Your task to perform on an android device: turn on location history Image 0: 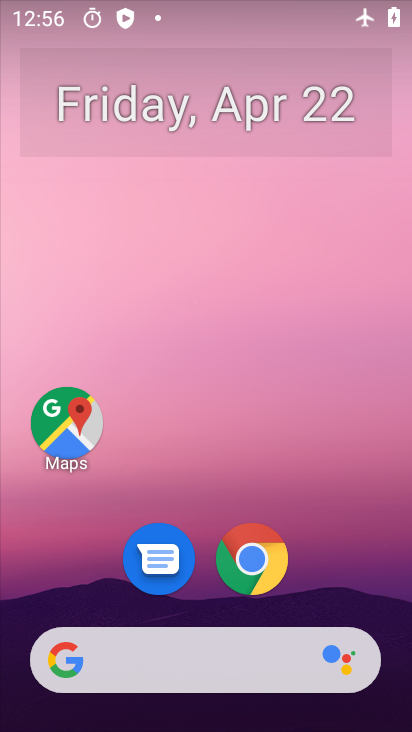
Step 0: click (373, 92)
Your task to perform on an android device: turn on location history Image 1: 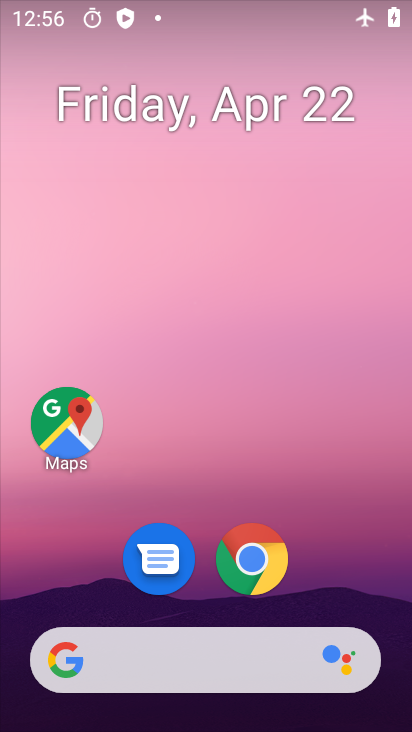
Step 1: drag from (314, 546) to (344, 64)
Your task to perform on an android device: turn on location history Image 2: 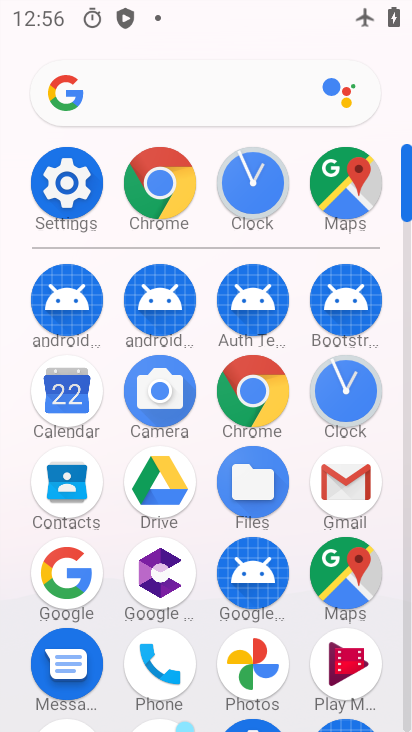
Step 2: click (69, 196)
Your task to perform on an android device: turn on location history Image 3: 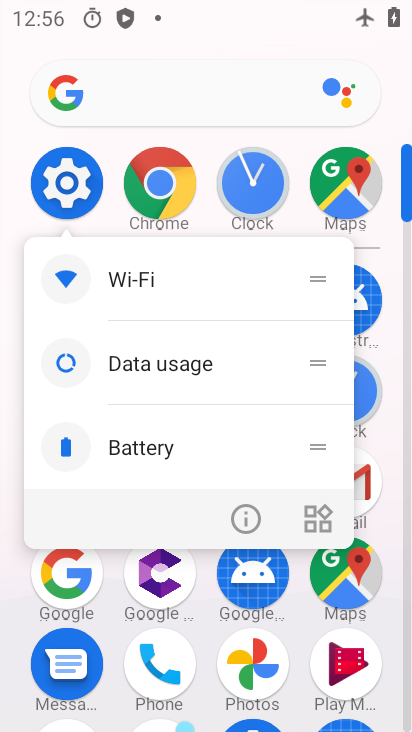
Step 3: click (77, 187)
Your task to perform on an android device: turn on location history Image 4: 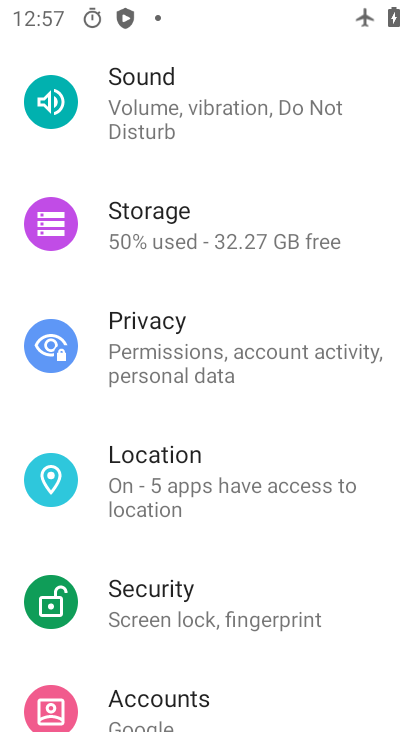
Step 4: drag from (341, 397) to (331, 470)
Your task to perform on an android device: turn on location history Image 5: 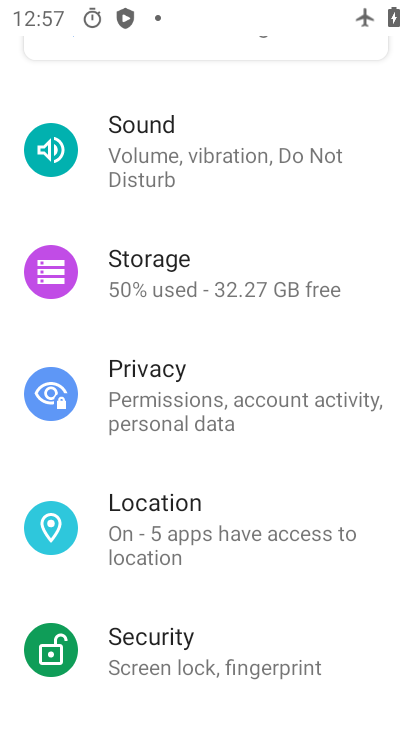
Step 5: drag from (369, 345) to (368, 460)
Your task to perform on an android device: turn on location history Image 6: 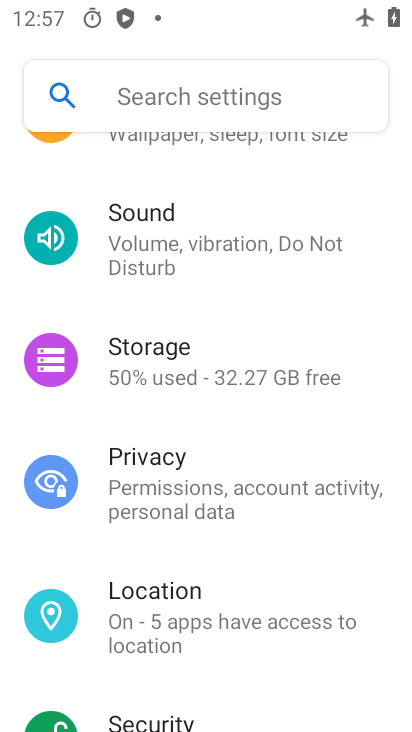
Step 6: drag from (376, 365) to (359, 462)
Your task to perform on an android device: turn on location history Image 7: 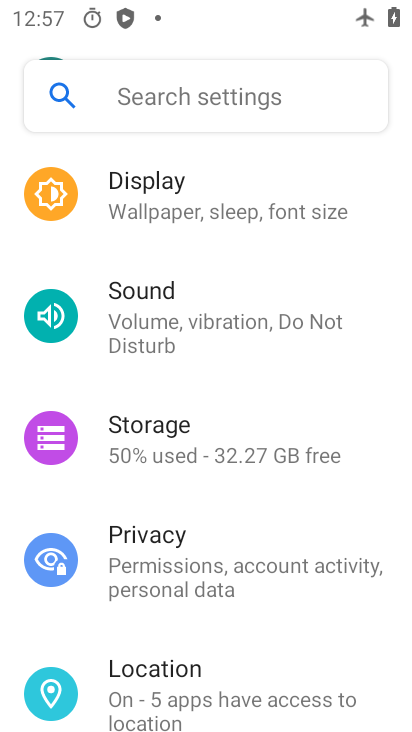
Step 7: drag from (364, 374) to (357, 479)
Your task to perform on an android device: turn on location history Image 8: 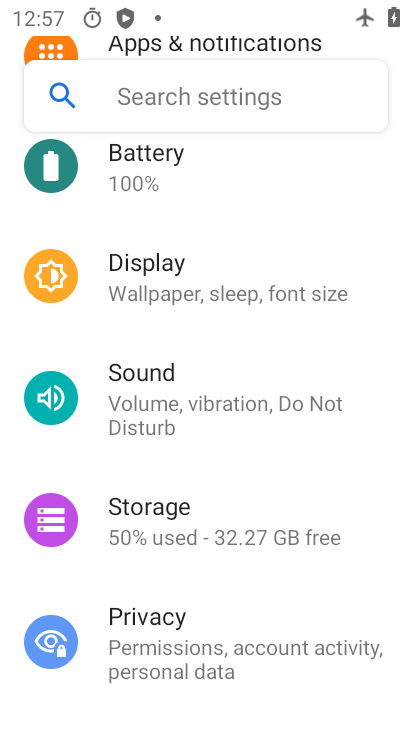
Step 8: drag from (353, 412) to (358, 490)
Your task to perform on an android device: turn on location history Image 9: 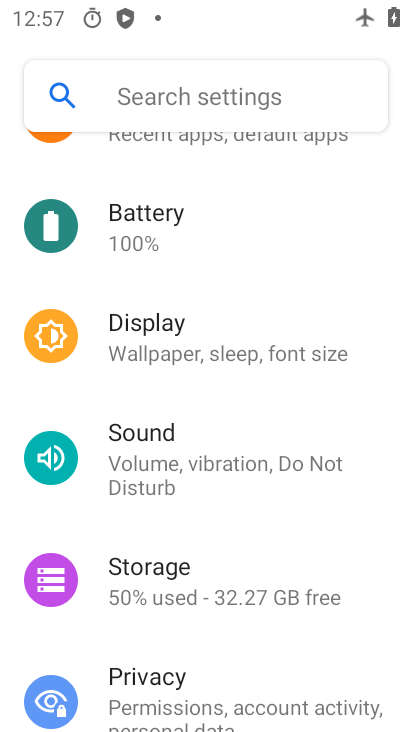
Step 9: drag from (367, 414) to (366, 500)
Your task to perform on an android device: turn on location history Image 10: 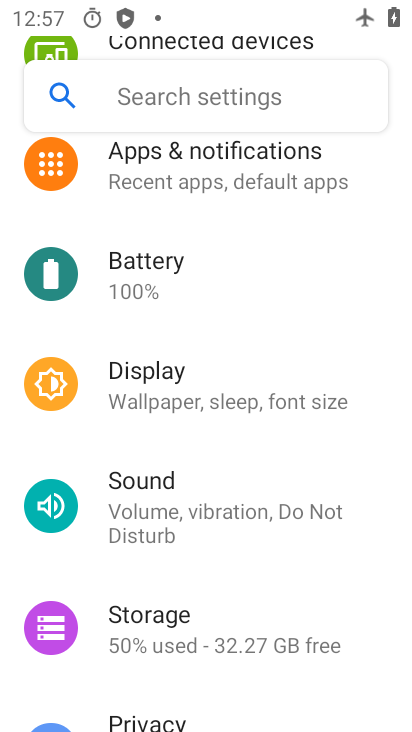
Step 10: drag from (375, 398) to (368, 497)
Your task to perform on an android device: turn on location history Image 11: 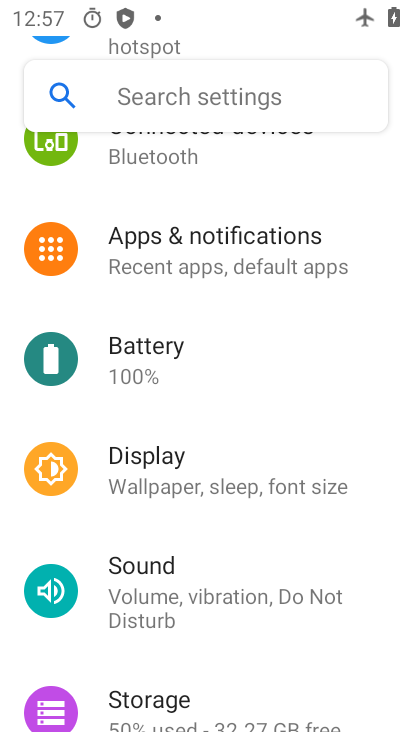
Step 11: drag from (374, 420) to (373, 518)
Your task to perform on an android device: turn on location history Image 12: 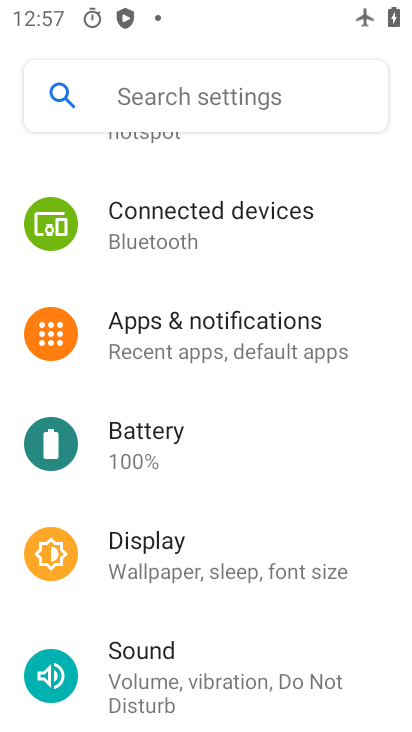
Step 12: drag from (361, 435) to (355, 527)
Your task to perform on an android device: turn on location history Image 13: 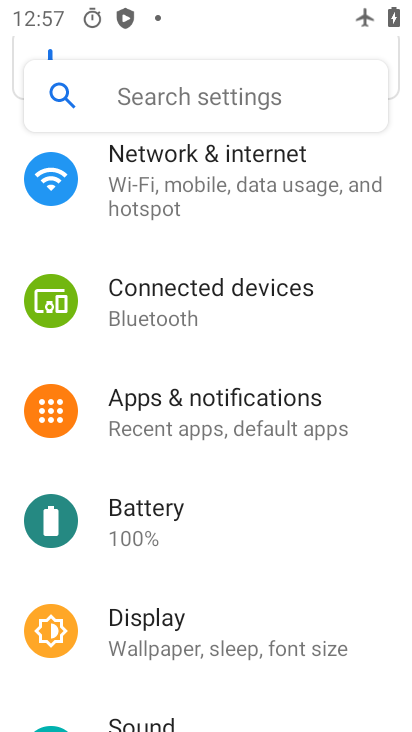
Step 13: drag from (368, 550) to (367, 428)
Your task to perform on an android device: turn on location history Image 14: 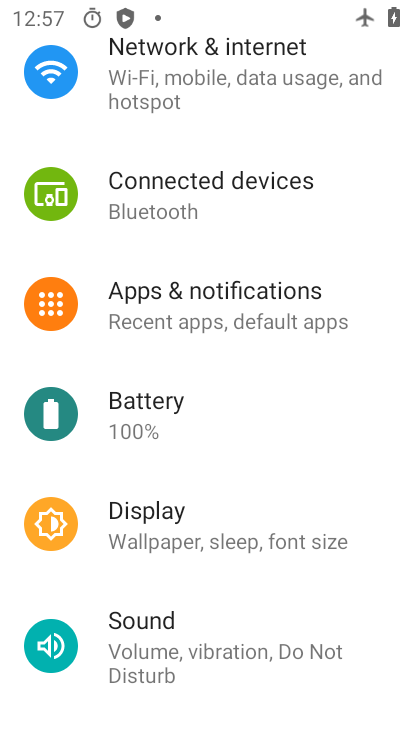
Step 14: drag from (367, 573) to (340, 408)
Your task to perform on an android device: turn on location history Image 15: 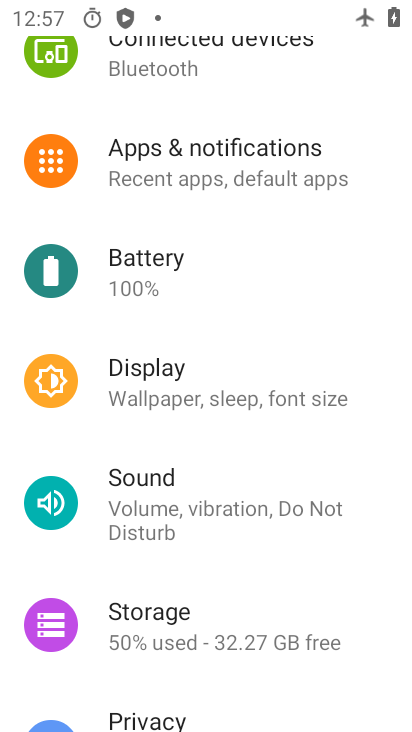
Step 15: drag from (373, 576) to (356, 420)
Your task to perform on an android device: turn on location history Image 16: 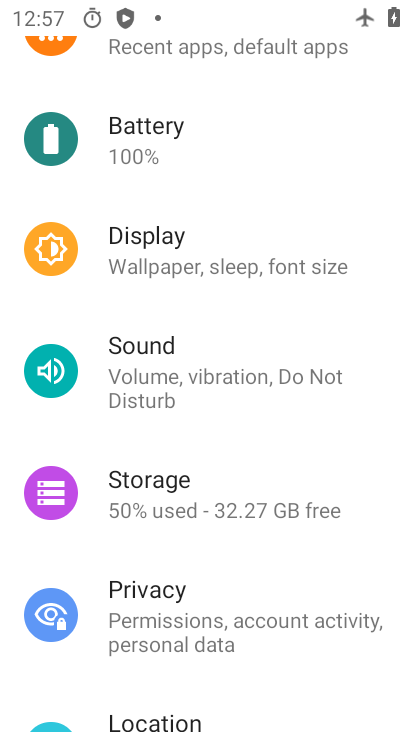
Step 16: drag from (367, 556) to (361, 411)
Your task to perform on an android device: turn on location history Image 17: 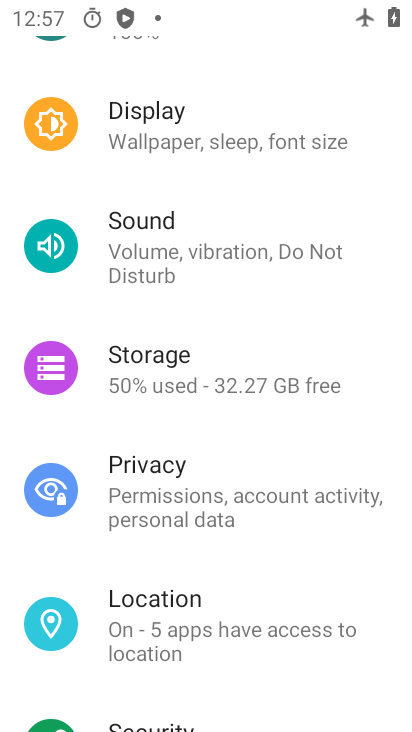
Step 17: drag from (366, 559) to (362, 420)
Your task to perform on an android device: turn on location history Image 18: 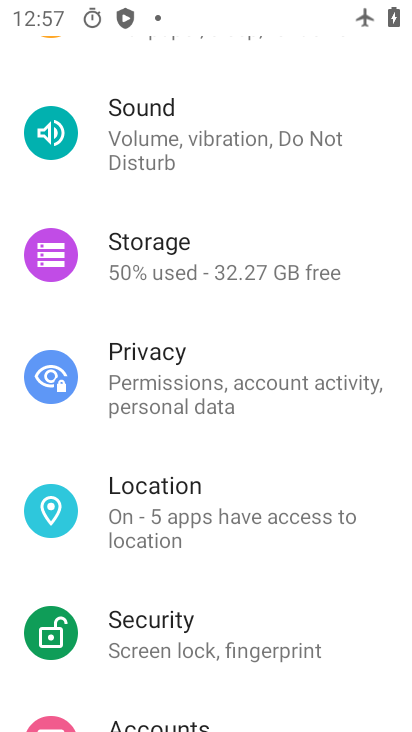
Step 18: drag from (379, 584) to (375, 480)
Your task to perform on an android device: turn on location history Image 19: 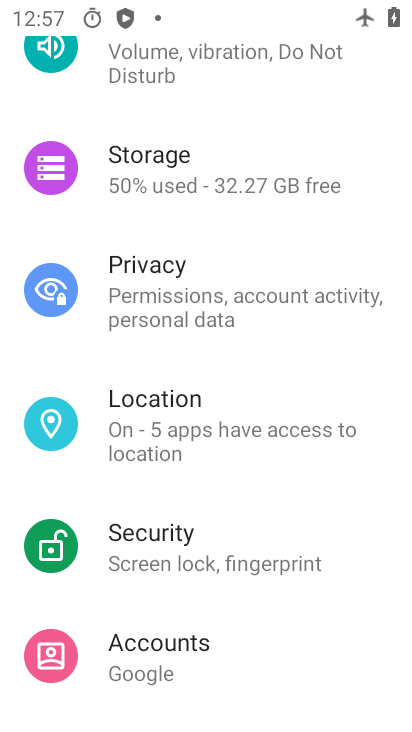
Step 19: click (264, 438)
Your task to perform on an android device: turn on location history Image 20: 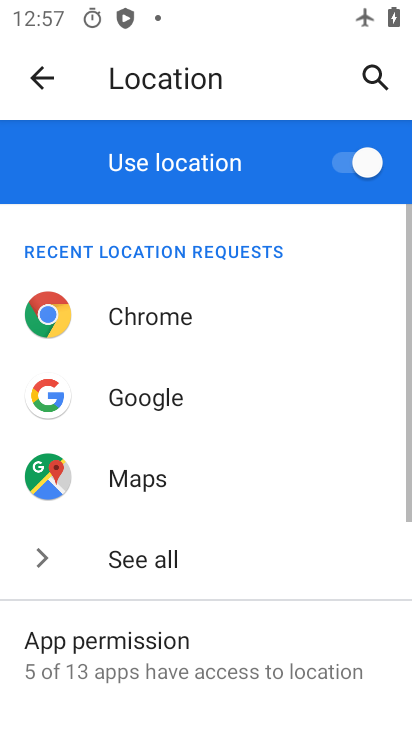
Step 20: drag from (333, 604) to (335, 435)
Your task to perform on an android device: turn on location history Image 21: 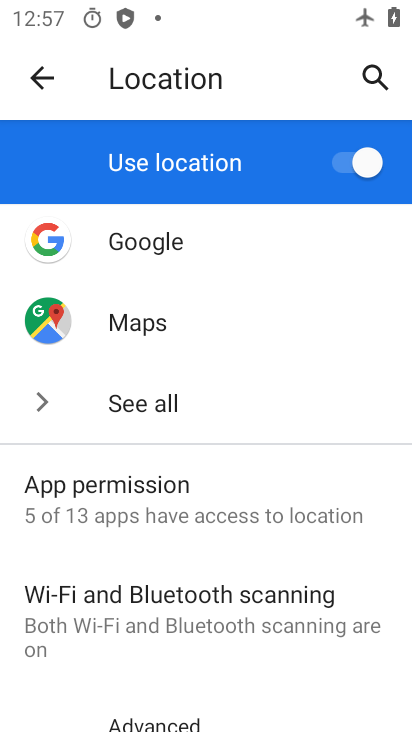
Step 21: drag from (354, 582) to (343, 424)
Your task to perform on an android device: turn on location history Image 22: 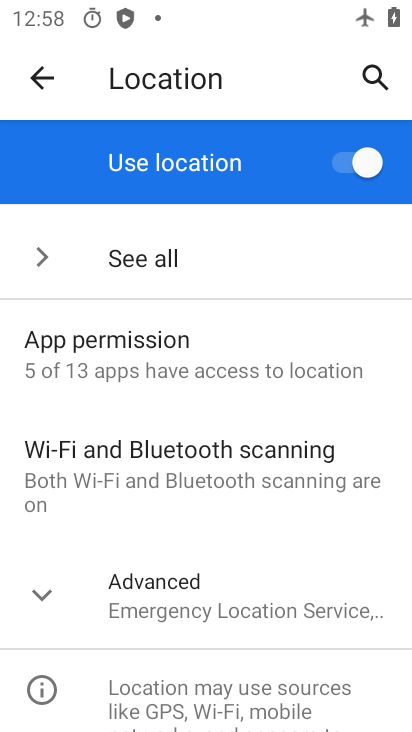
Step 22: click (349, 620)
Your task to perform on an android device: turn on location history Image 23: 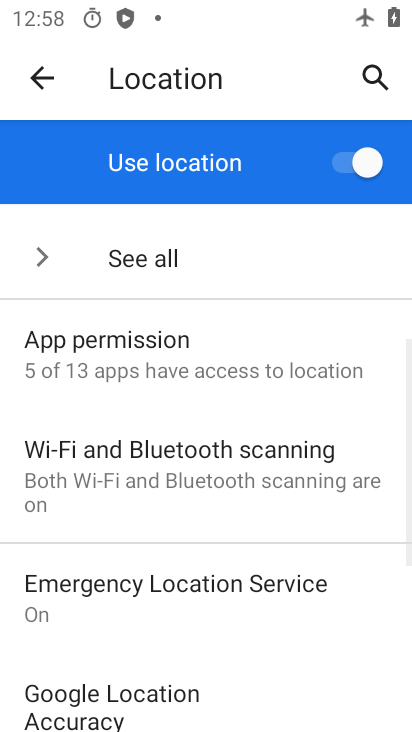
Step 23: drag from (359, 651) to (361, 507)
Your task to perform on an android device: turn on location history Image 24: 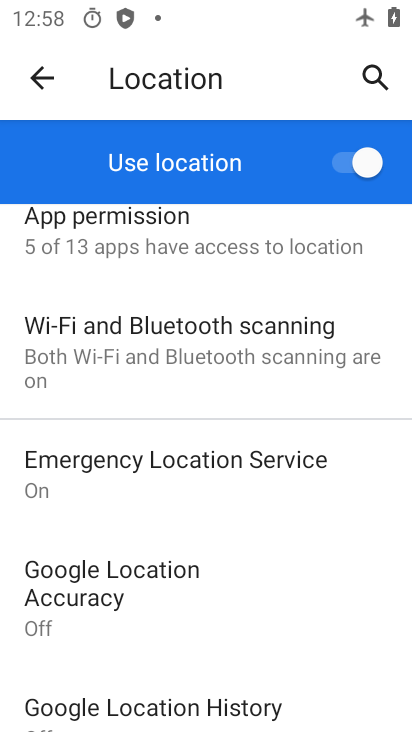
Step 24: drag from (364, 643) to (345, 512)
Your task to perform on an android device: turn on location history Image 25: 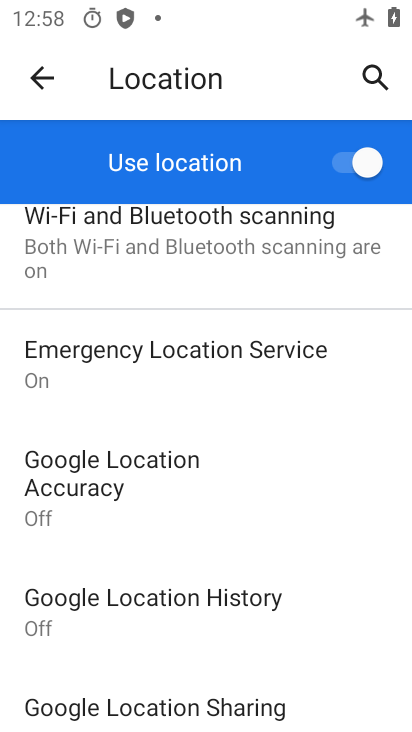
Step 25: click (265, 605)
Your task to perform on an android device: turn on location history Image 26: 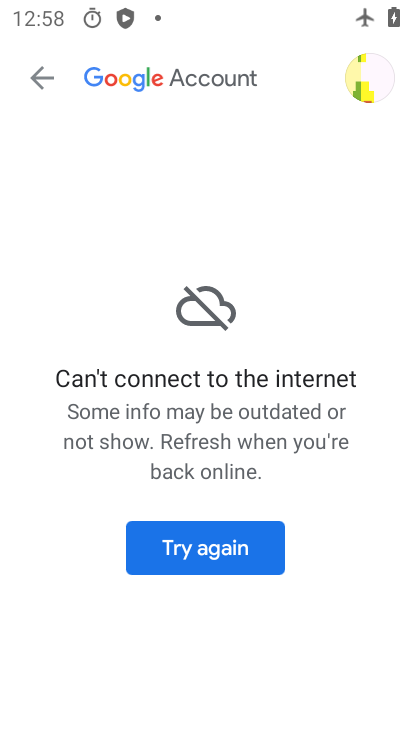
Step 26: task complete